Your task to perform on an android device: set the stopwatch Image 0: 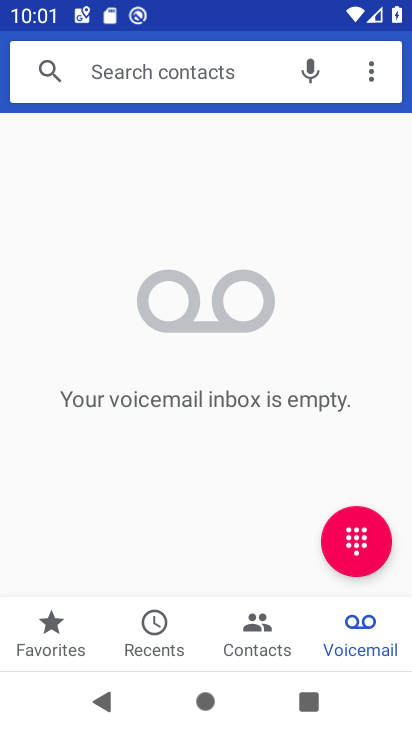
Step 0: press home button
Your task to perform on an android device: set the stopwatch Image 1: 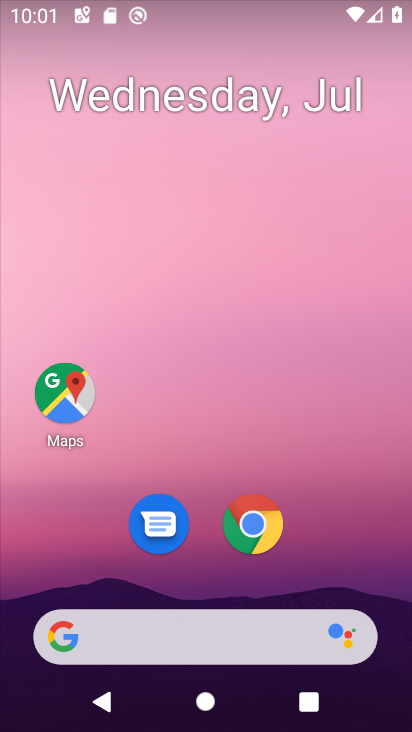
Step 1: drag from (310, 559) to (319, 22)
Your task to perform on an android device: set the stopwatch Image 2: 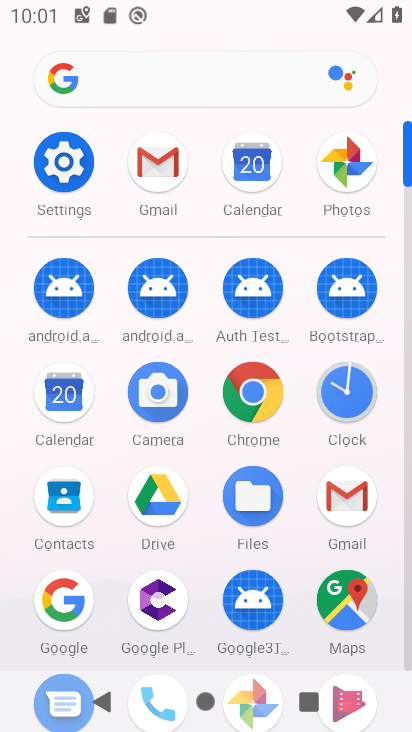
Step 2: click (350, 399)
Your task to perform on an android device: set the stopwatch Image 3: 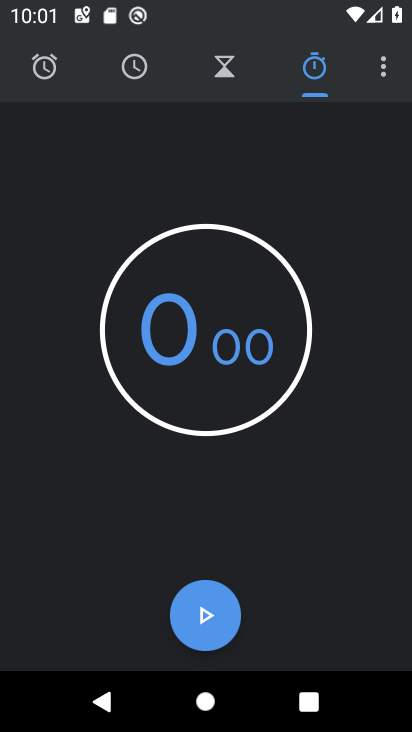
Step 3: task complete